Your task to perform on an android device: set default search engine in the chrome app Image 0: 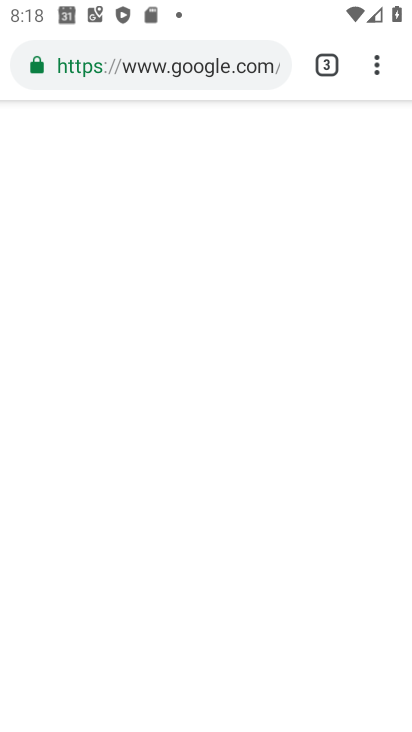
Step 0: press home button
Your task to perform on an android device: set default search engine in the chrome app Image 1: 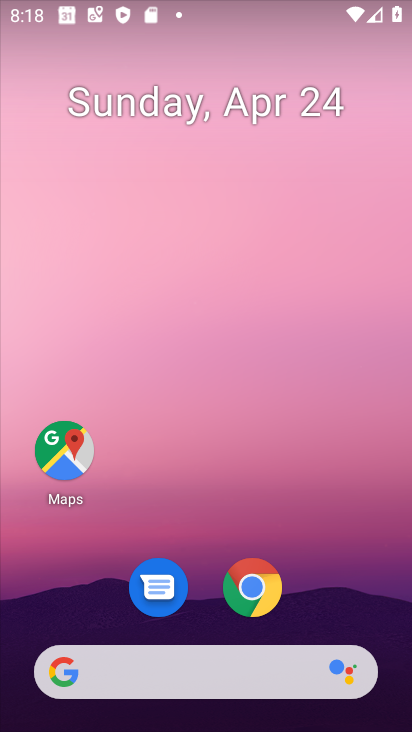
Step 1: drag from (352, 419) to (349, 165)
Your task to perform on an android device: set default search engine in the chrome app Image 2: 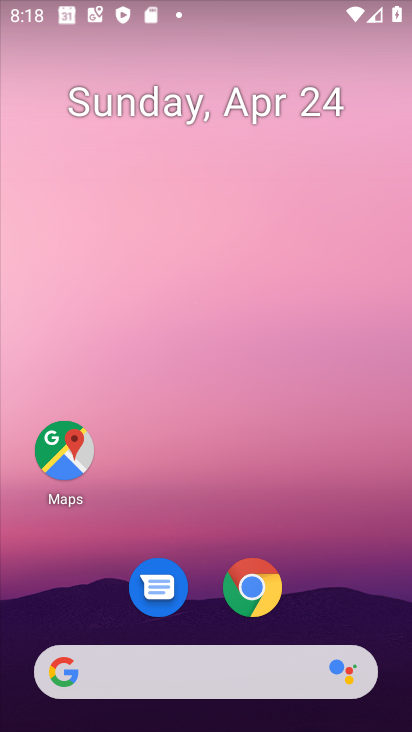
Step 2: drag from (331, 562) to (382, 117)
Your task to perform on an android device: set default search engine in the chrome app Image 3: 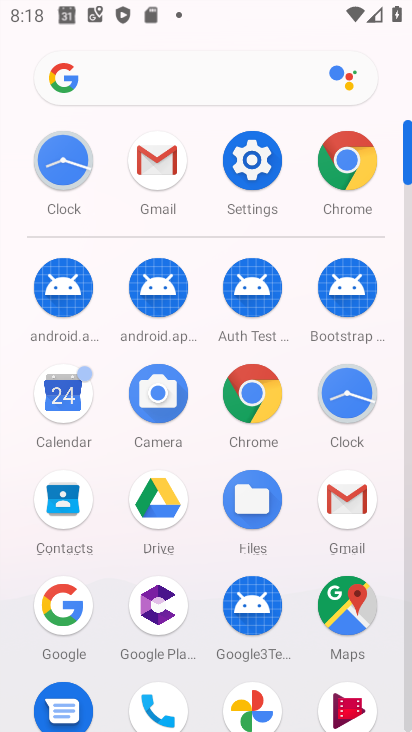
Step 3: click (344, 152)
Your task to perform on an android device: set default search engine in the chrome app Image 4: 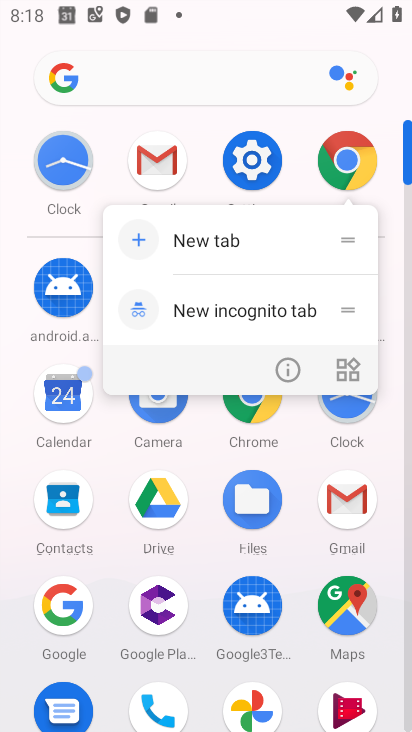
Step 4: click (345, 169)
Your task to perform on an android device: set default search engine in the chrome app Image 5: 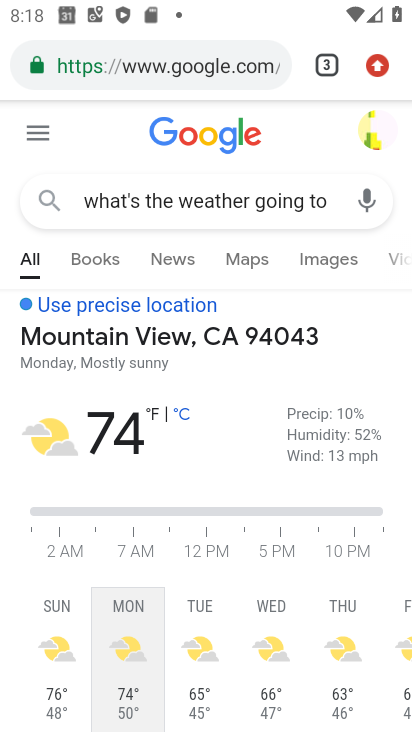
Step 5: drag from (374, 72) to (181, 630)
Your task to perform on an android device: set default search engine in the chrome app Image 6: 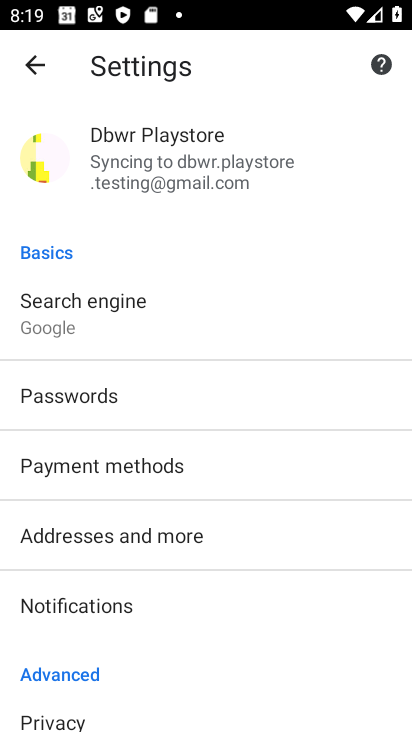
Step 6: click (83, 314)
Your task to perform on an android device: set default search engine in the chrome app Image 7: 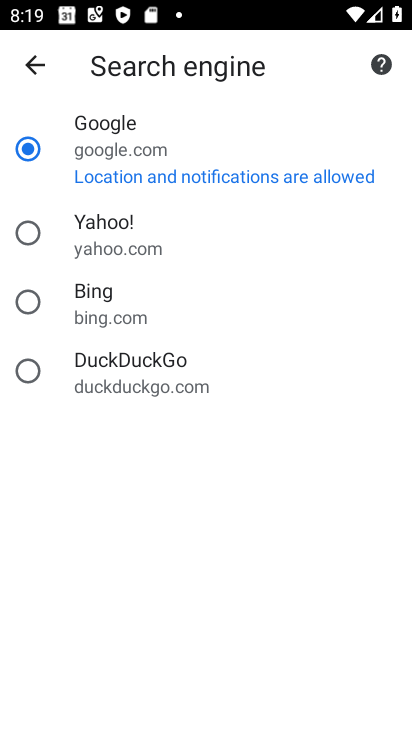
Step 7: click (24, 232)
Your task to perform on an android device: set default search engine in the chrome app Image 8: 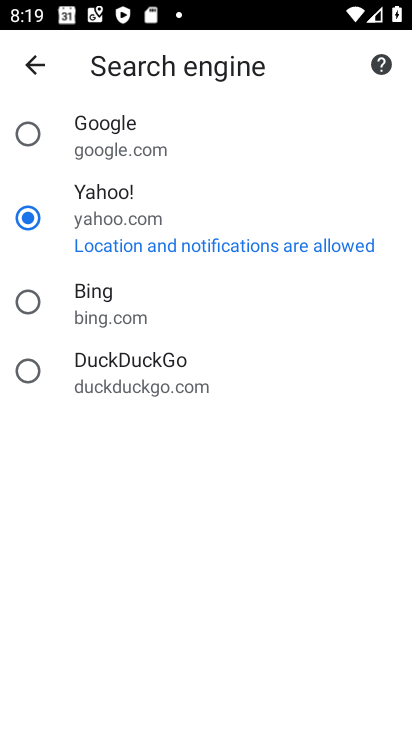
Step 8: task complete